Your task to perform on an android device: open the mobile data screen to see how much data has been used Image 0: 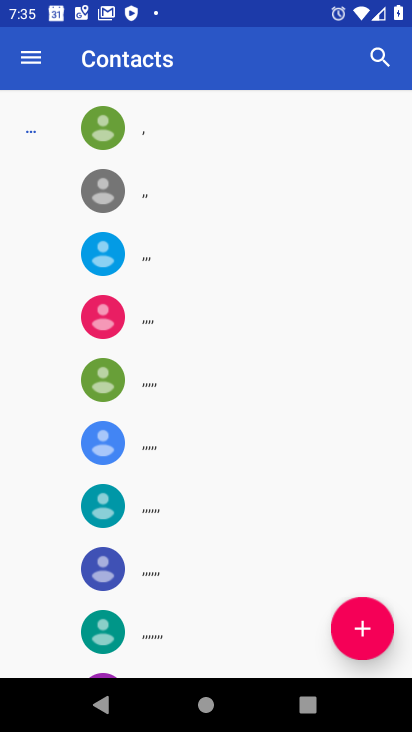
Step 0: press home button
Your task to perform on an android device: open the mobile data screen to see how much data has been used Image 1: 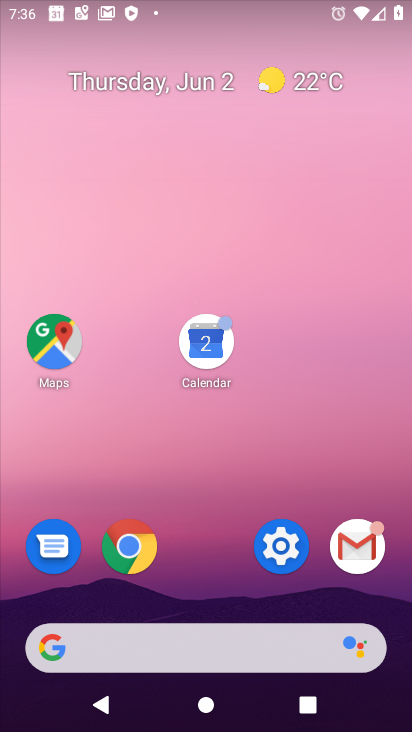
Step 1: click (265, 543)
Your task to perform on an android device: open the mobile data screen to see how much data has been used Image 2: 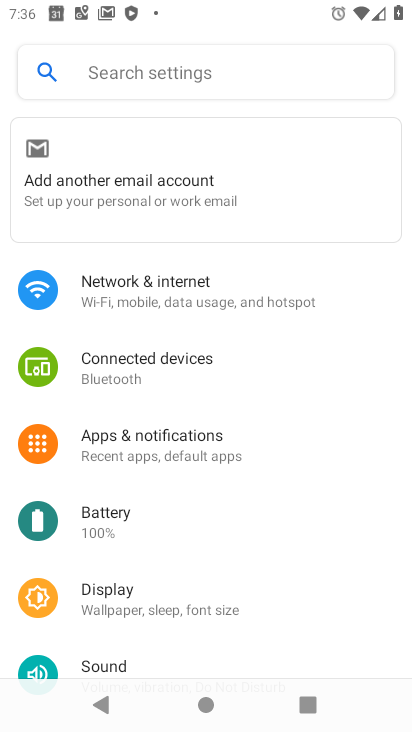
Step 2: click (149, 62)
Your task to perform on an android device: open the mobile data screen to see how much data has been used Image 3: 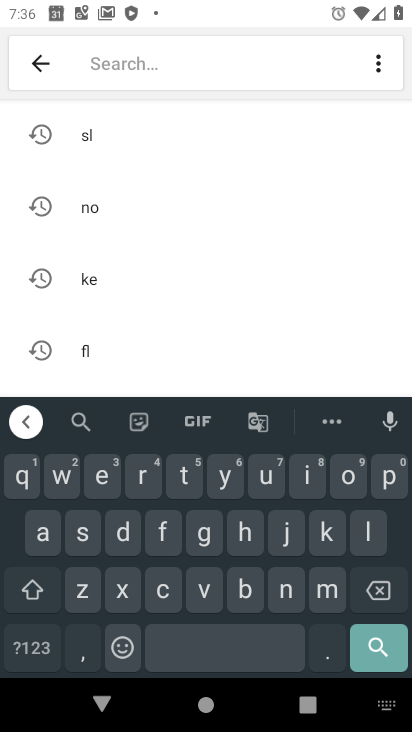
Step 3: click (122, 538)
Your task to perform on an android device: open the mobile data screen to see how much data has been used Image 4: 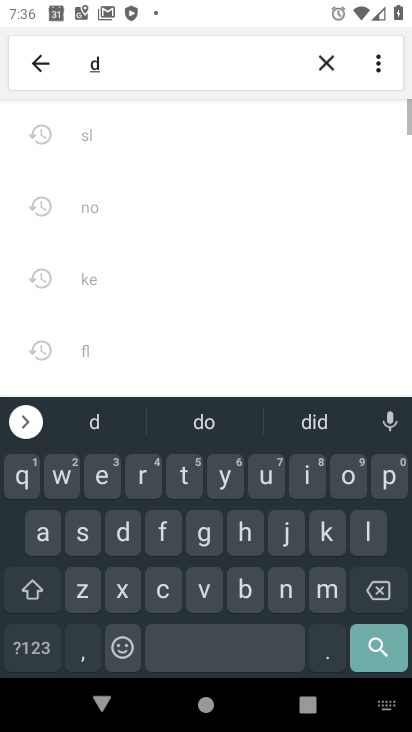
Step 4: click (37, 541)
Your task to perform on an android device: open the mobile data screen to see how much data has been used Image 5: 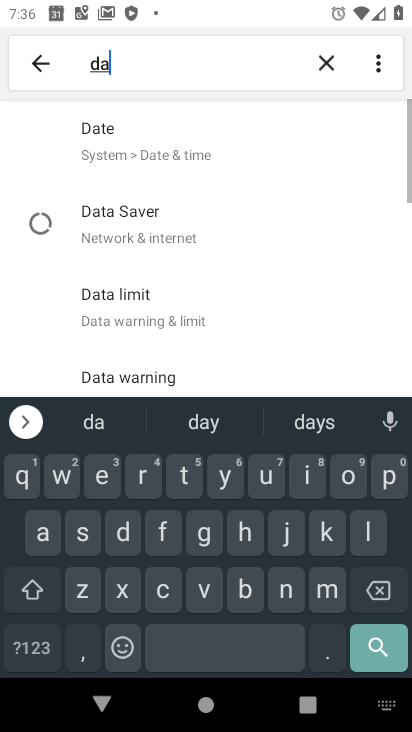
Step 5: click (187, 475)
Your task to perform on an android device: open the mobile data screen to see how much data has been used Image 6: 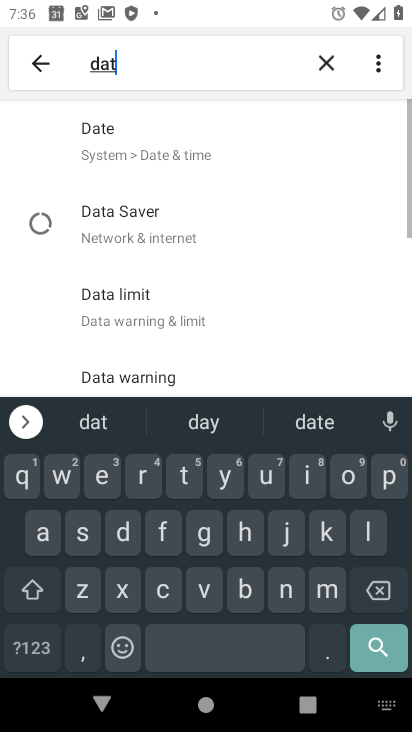
Step 6: click (43, 537)
Your task to perform on an android device: open the mobile data screen to see how much data has been used Image 7: 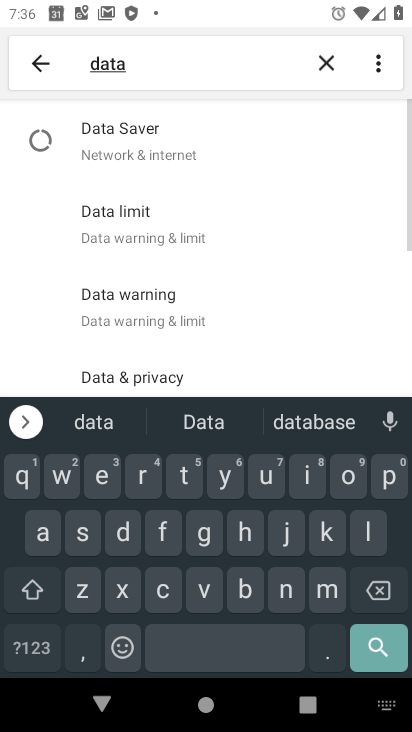
Step 7: click (235, 638)
Your task to perform on an android device: open the mobile data screen to see how much data has been used Image 8: 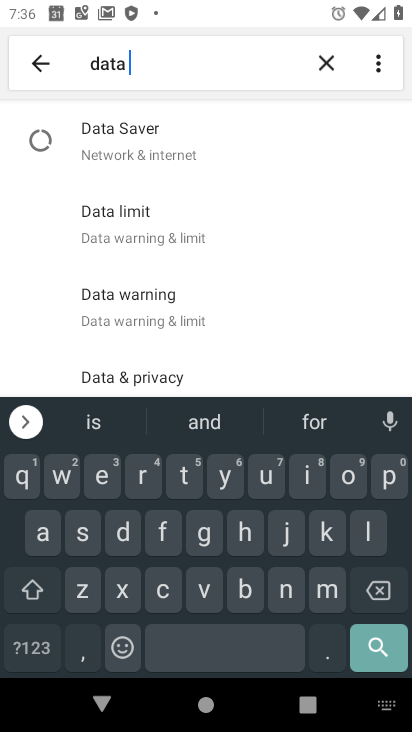
Step 8: click (268, 496)
Your task to perform on an android device: open the mobile data screen to see how much data has been used Image 9: 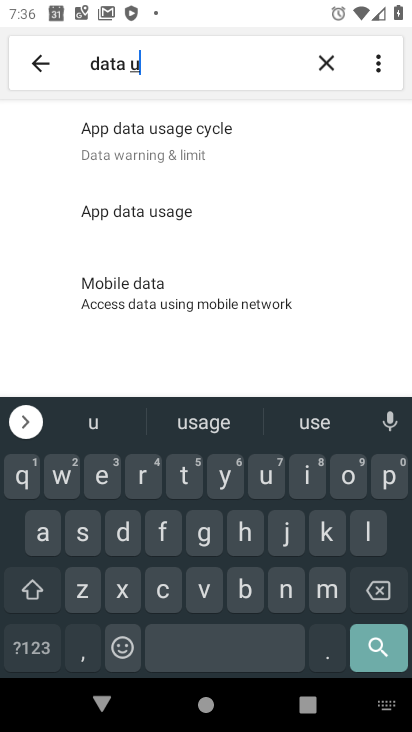
Step 9: click (172, 218)
Your task to perform on an android device: open the mobile data screen to see how much data has been used Image 10: 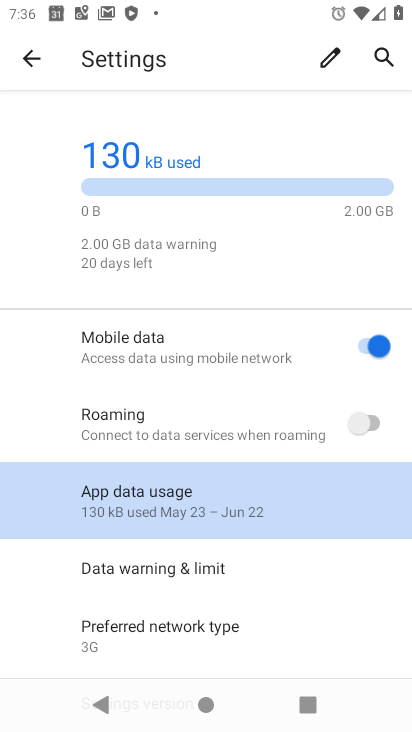
Step 10: click (274, 496)
Your task to perform on an android device: open the mobile data screen to see how much data has been used Image 11: 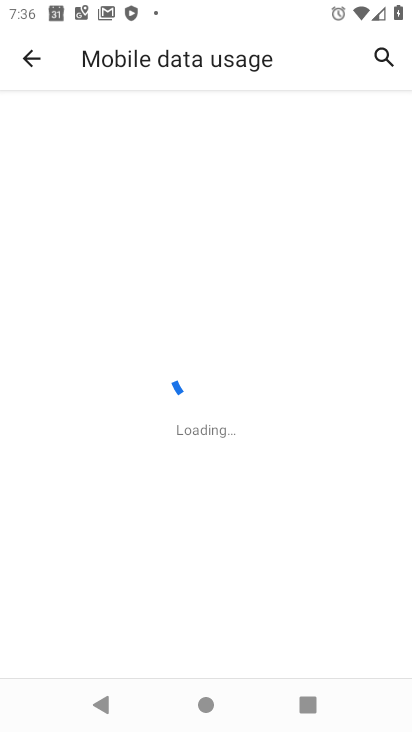
Step 11: task complete